Your task to perform on an android device: What's the weather going to be tomorrow? Image 0: 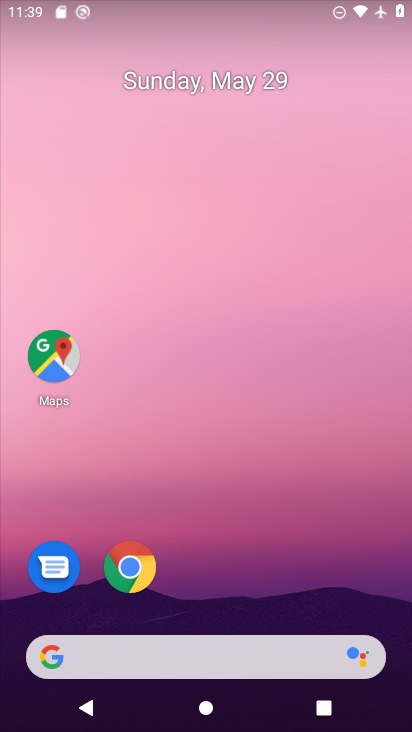
Step 0: click (114, 653)
Your task to perform on an android device: What's the weather going to be tomorrow? Image 1: 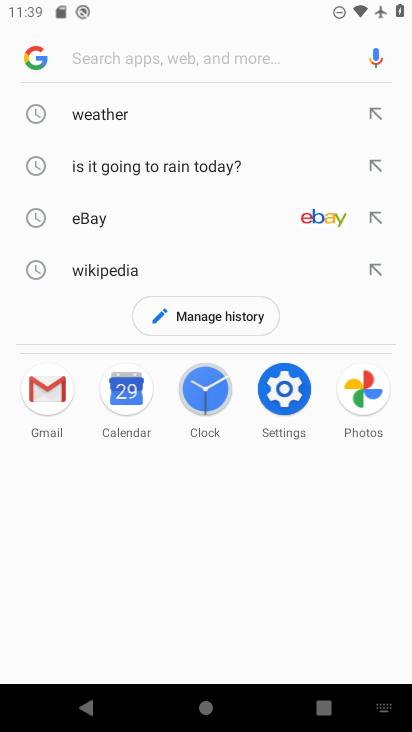
Step 1: click (94, 113)
Your task to perform on an android device: What's the weather going to be tomorrow? Image 2: 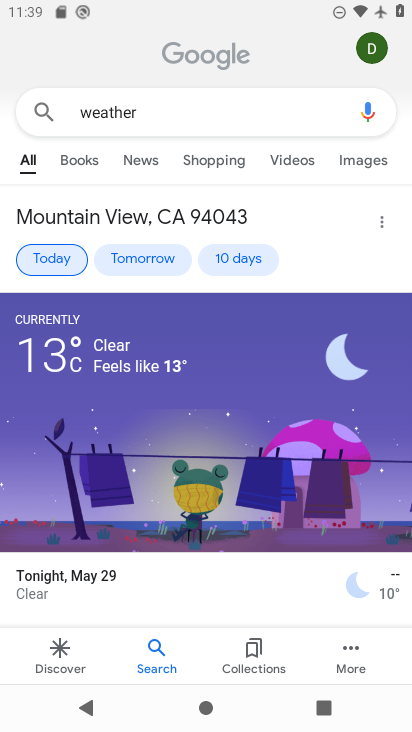
Step 2: click (142, 253)
Your task to perform on an android device: What's the weather going to be tomorrow? Image 3: 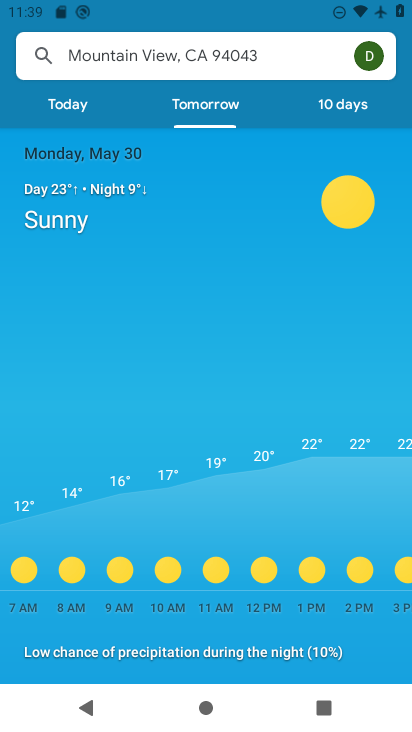
Step 3: task complete